Your task to perform on an android device: What's the weather going to be tomorrow? Image 0: 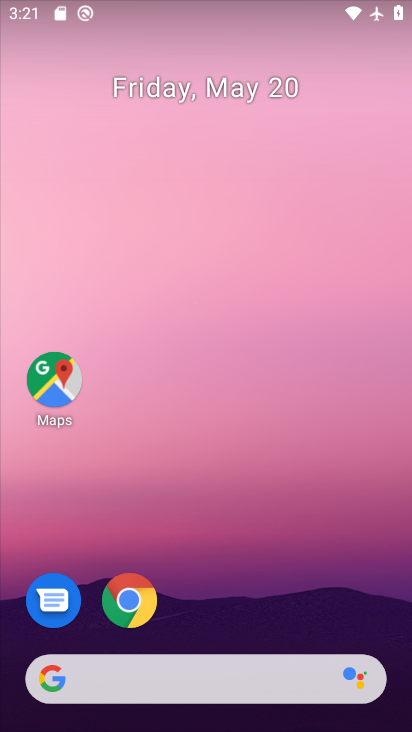
Step 0: drag from (285, 533) to (152, 19)
Your task to perform on an android device: What's the weather going to be tomorrow? Image 1: 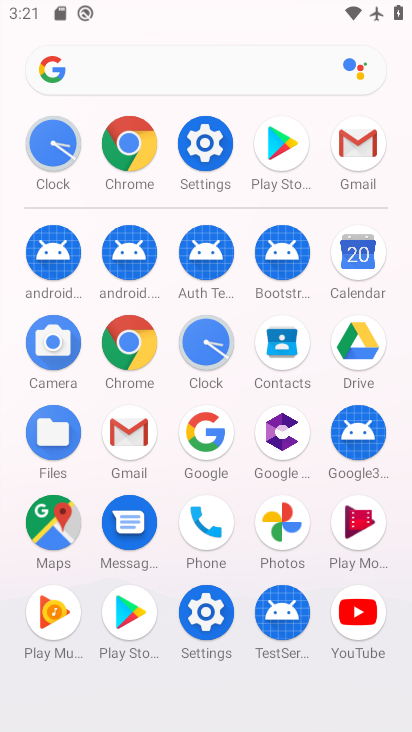
Step 1: click (209, 430)
Your task to perform on an android device: What's the weather going to be tomorrow? Image 2: 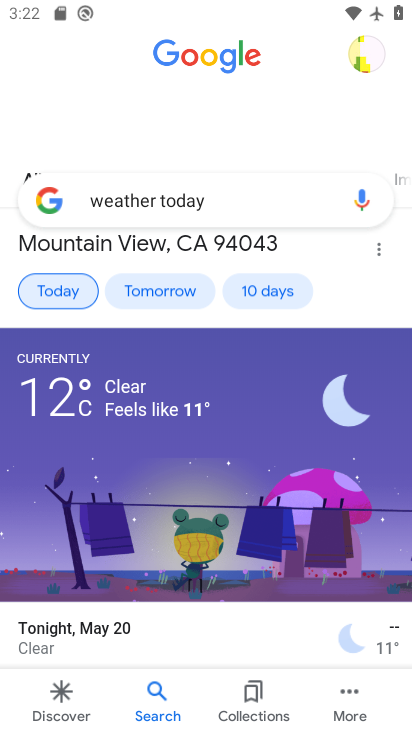
Step 2: click (169, 287)
Your task to perform on an android device: What's the weather going to be tomorrow? Image 3: 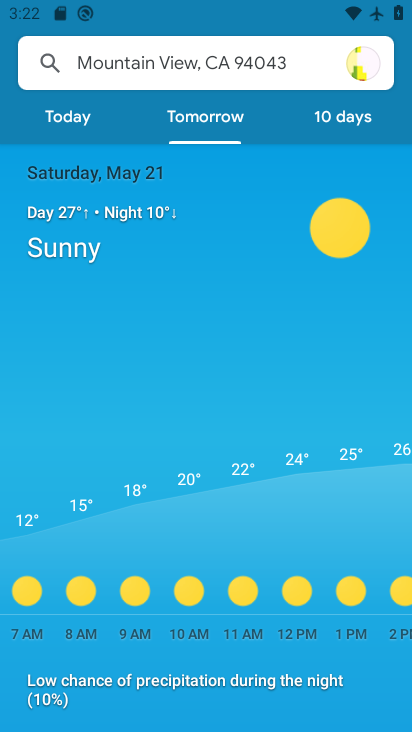
Step 3: task complete